Your task to perform on an android device: create a new album in the google photos Image 0: 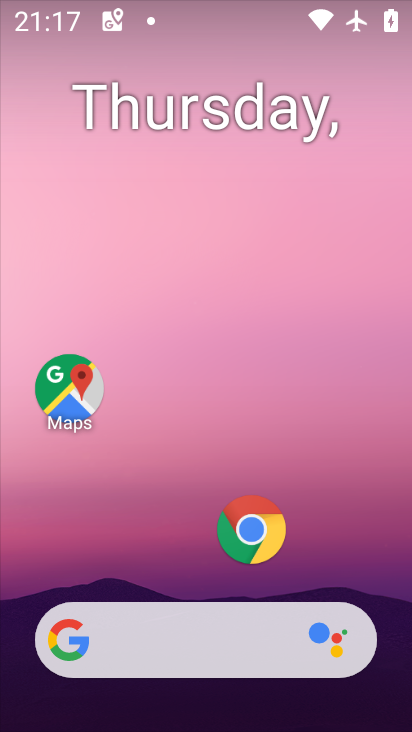
Step 0: drag from (199, 574) to (208, 123)
Your task to perform on an android device: create a new album in the google photos Image 1: 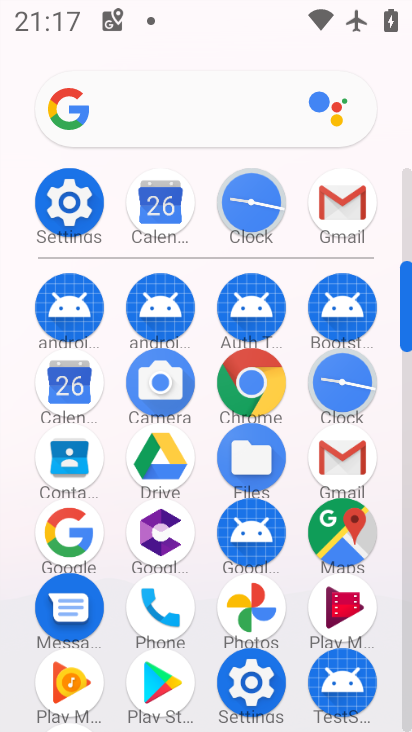
Step 1: click (256, 595)
Your task to perform on an android device: create a new album in the google photos Image 2: 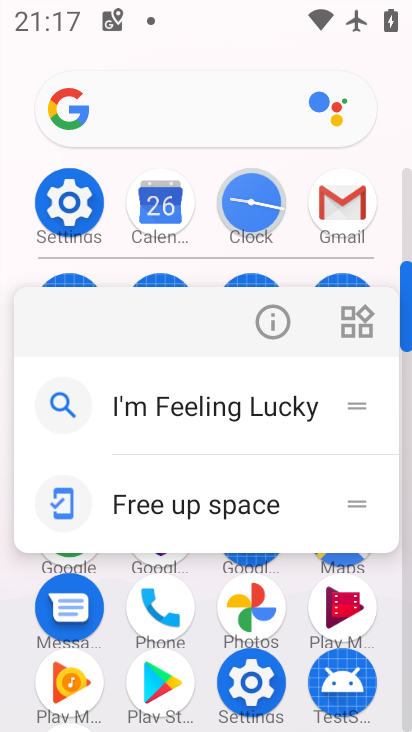
Step 2: click (256, 600)
Your task to perform on an android device: create a new album in the google photos Image 3: 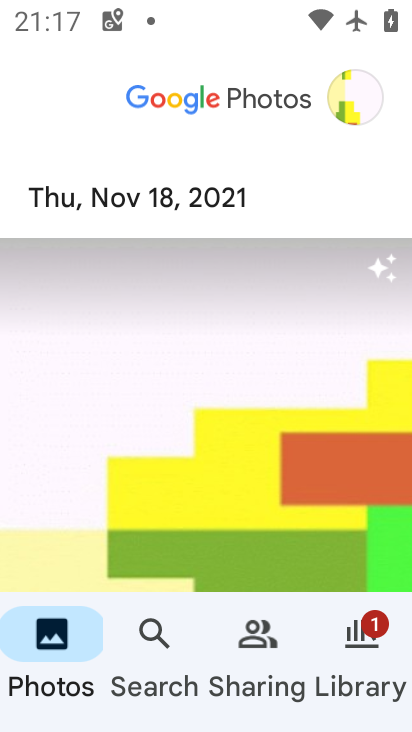
Step 3: click (271, 640)
Your task to perform on an android device: create a new album in the google photos Image 4: 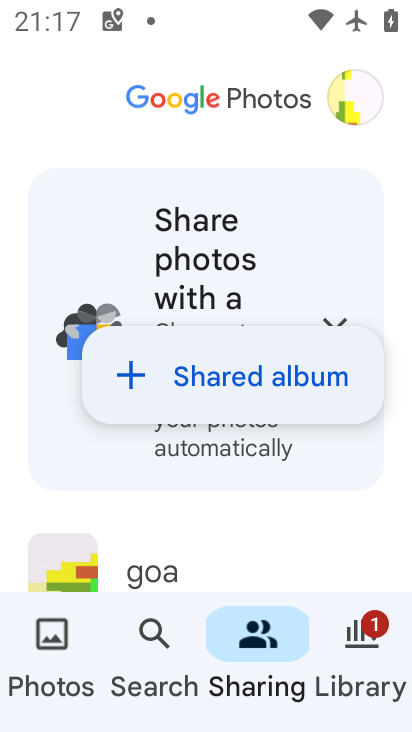
Step 4: click (137, 377)
Your task to perform on an android device: create a new album in the google photos Image 5: 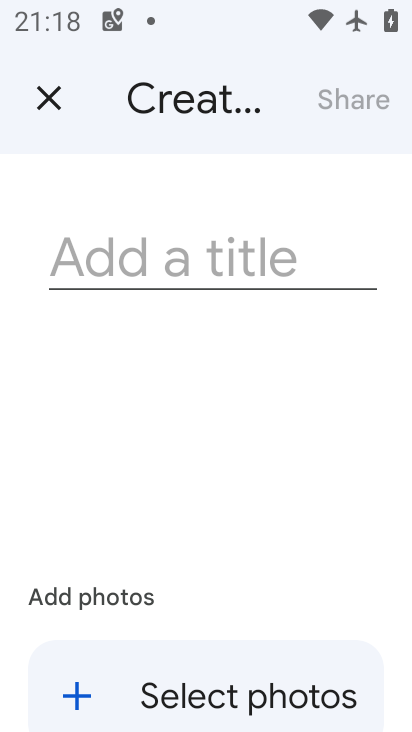
Step 5: click (162, 248)
Your task to perform on an android device: create a new album in the google photos Image 6: 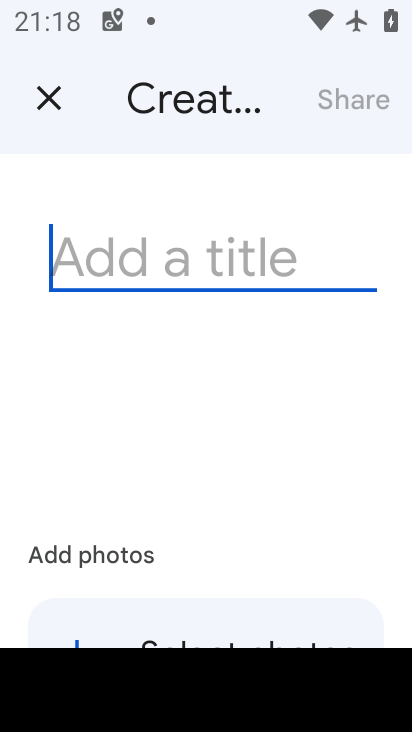
Step 6: drag from (191, 568) to (187, 244)
Your task to perform on an android device: create a new album in the google photos Image 7: 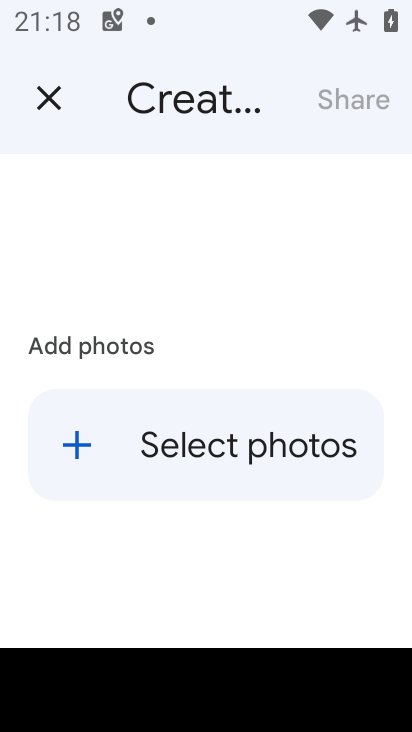
Step 7: click (87, 440)
Your task to perform on an android device: create a new album in the google photos Image 8: 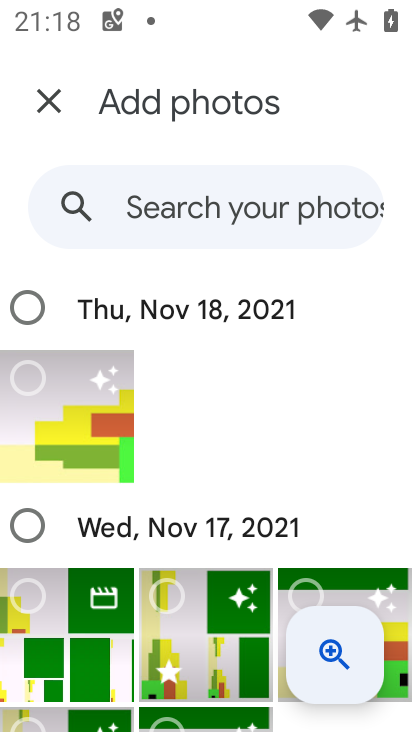
Step 8: click (29, 524)
Your task to perform on an android device: create a new album in the google photos Image 9: 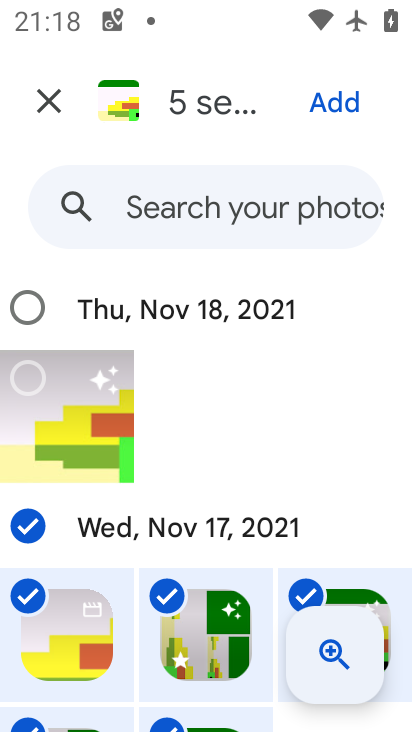
Step 9: click (338, 102)
Your task to perform on an android device: create a new album in the google photos Image 10: 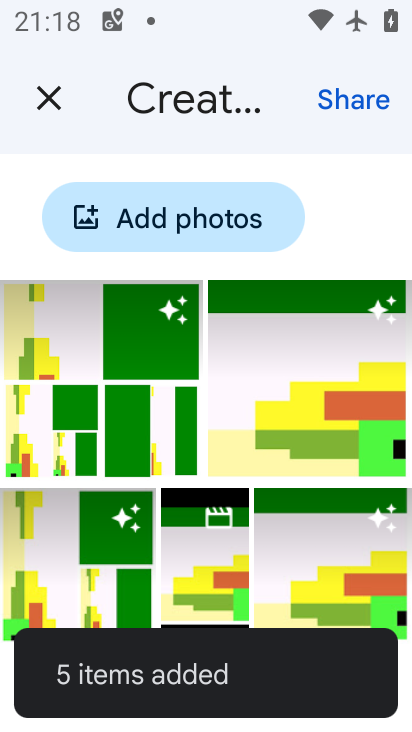
Step 10: drag from (348, 229) to (317, 602)
Your task to perform on an android device: create a new album in the google photos Image 11: 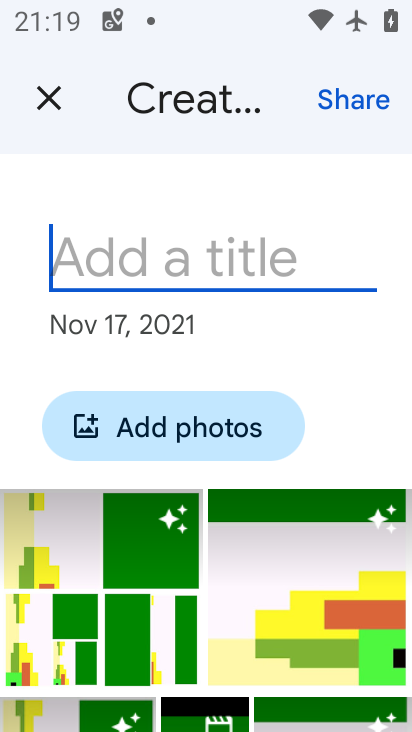
Step 11: type "dfdv"
Your task to perform on an android device: create a new album in the google photos Image 12: 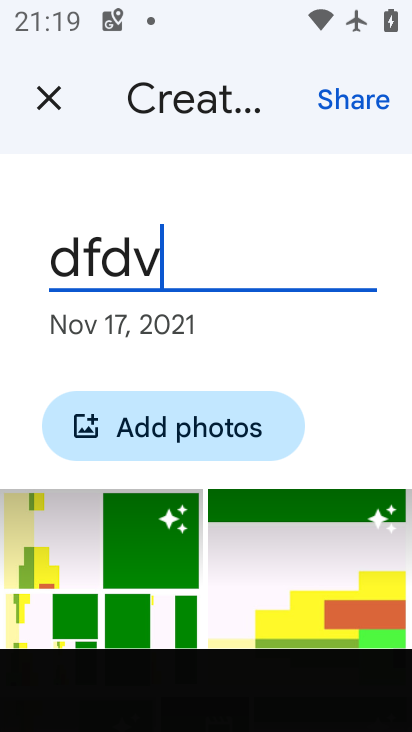
Step 12: type ""
Your task to perform on an android device: create a new album in the google photos Image 13: 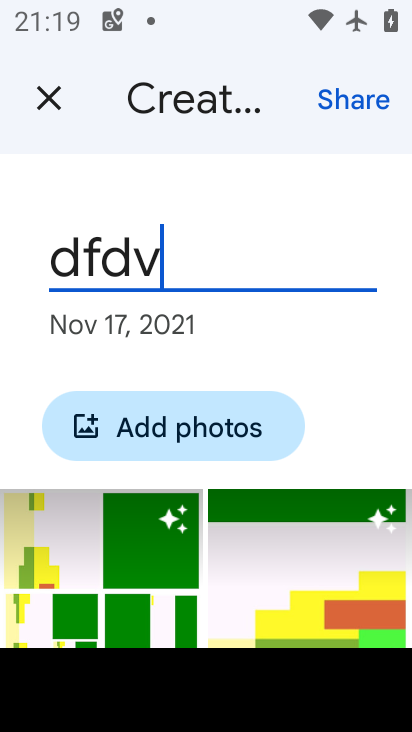
Step 13: click (345, 425)
Your task to perform on an android device: create a new album in the google photos Image 14: 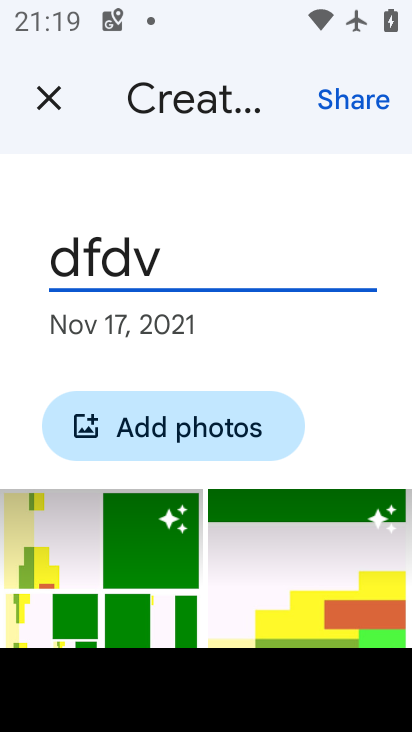
Step 14: click (341, 444)
Your task to perform on an android device: create a new album in the google photos Image 15: 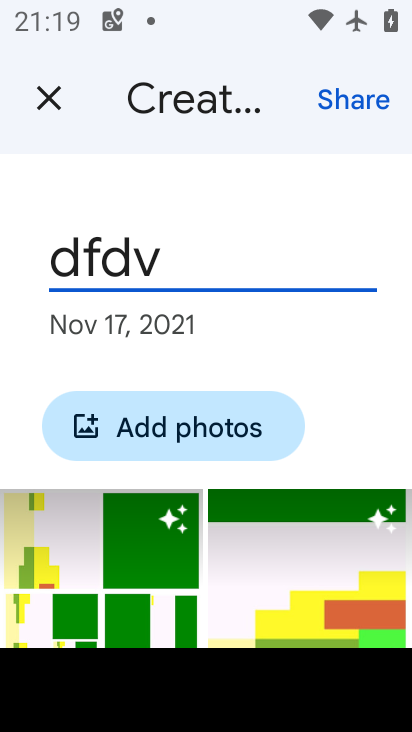
Step 15: task complete